Your task to perform on an android device: install app "Skype" Image 0: 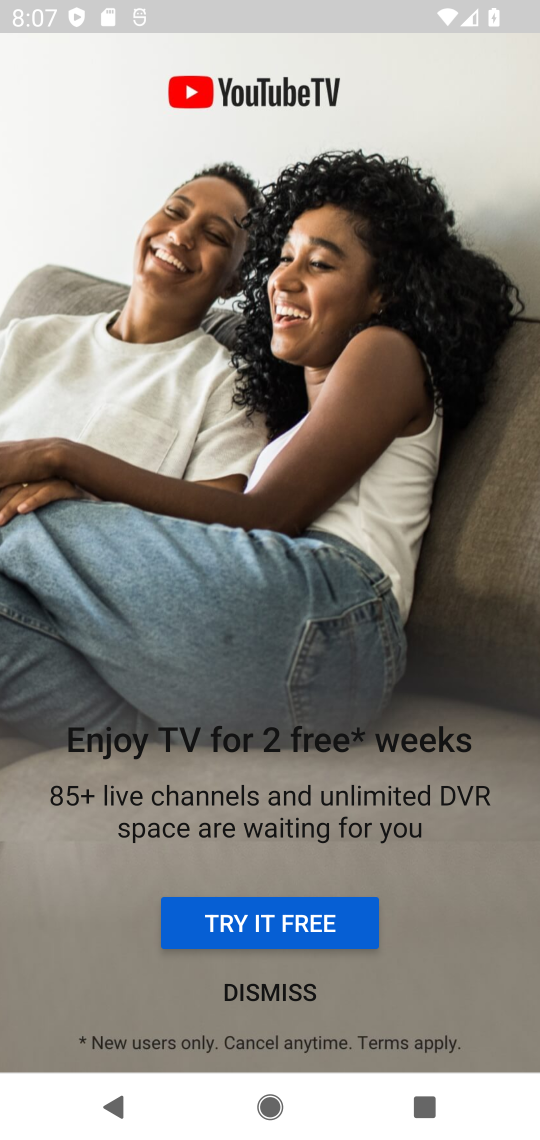
Step 0: press home button
Your task to perform on an android device: install app "Skype" Image 1: 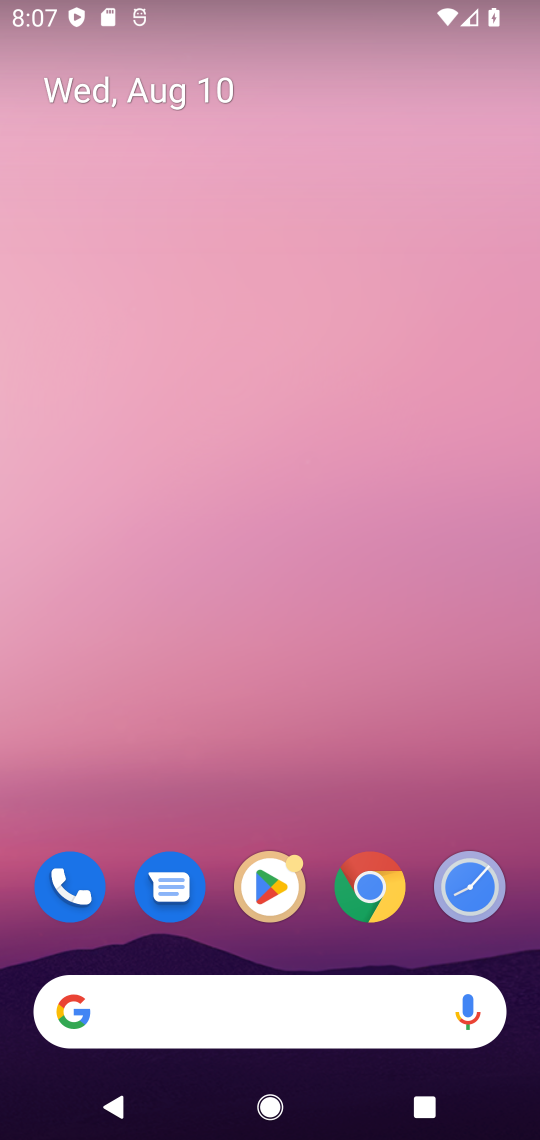
Step 1: click (248, 916)
Your task to perform on an android device: install app "Skype" Image 2: 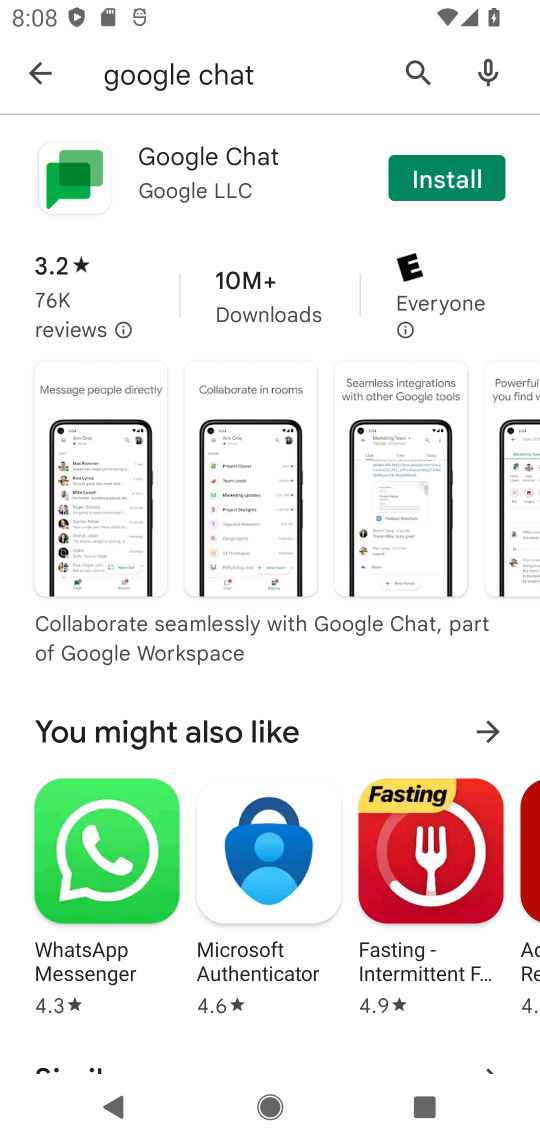
Step 2: click (414, 56)
Your task to perform on an android device: install app "Skype" Image 3: 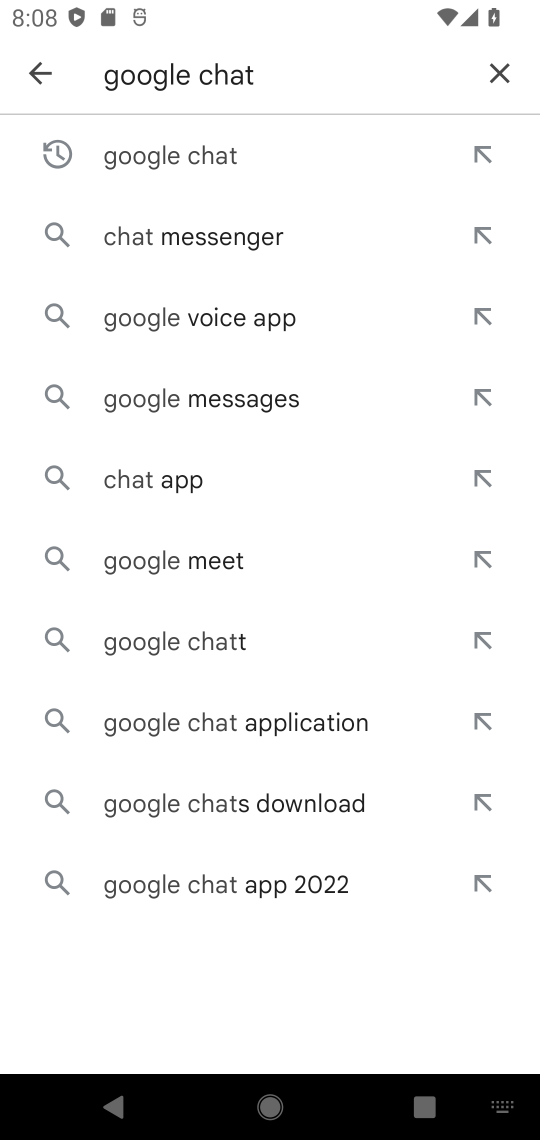
Step 3: click (479, 63)
Your task to perform on an android device: install app "Skype" Image 4: 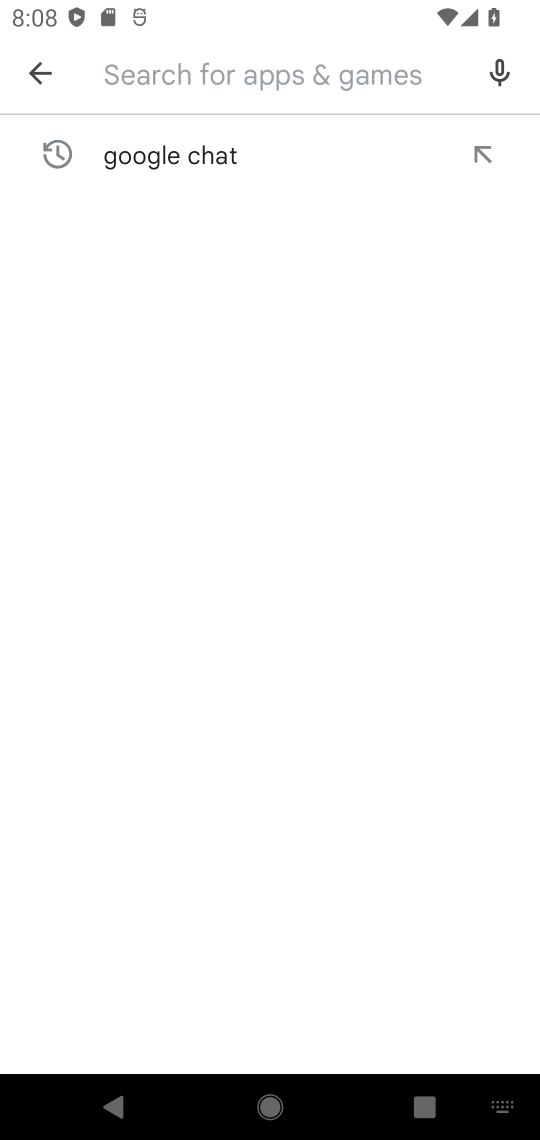
Step 4: type "skype"
Your task to perform on an android device: install app "Skype" Image 5: 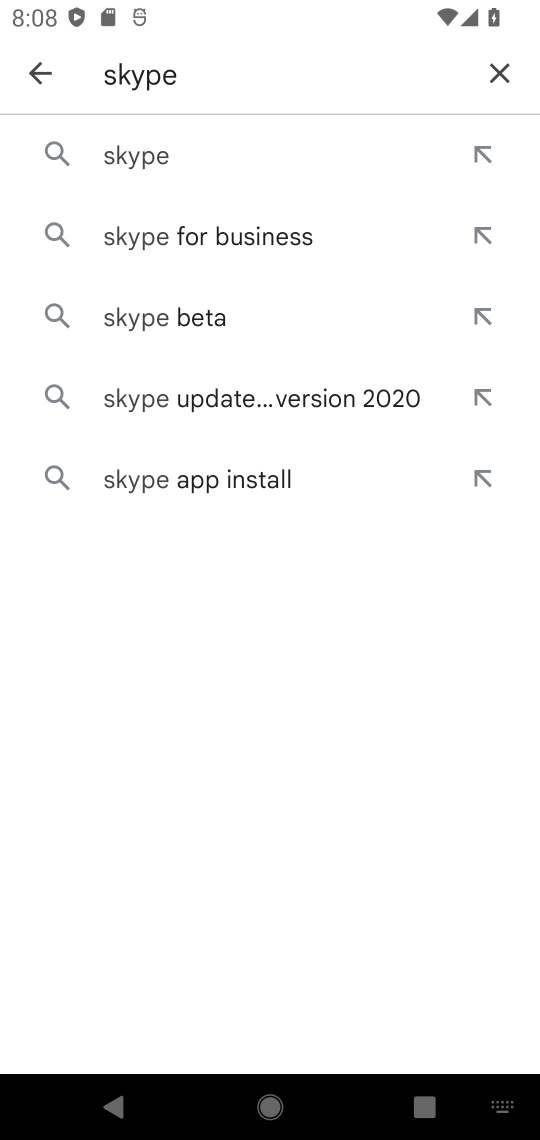
Step 5: click (398, 149)
Your task to perform on an android device: install app "Skype" Image 6: 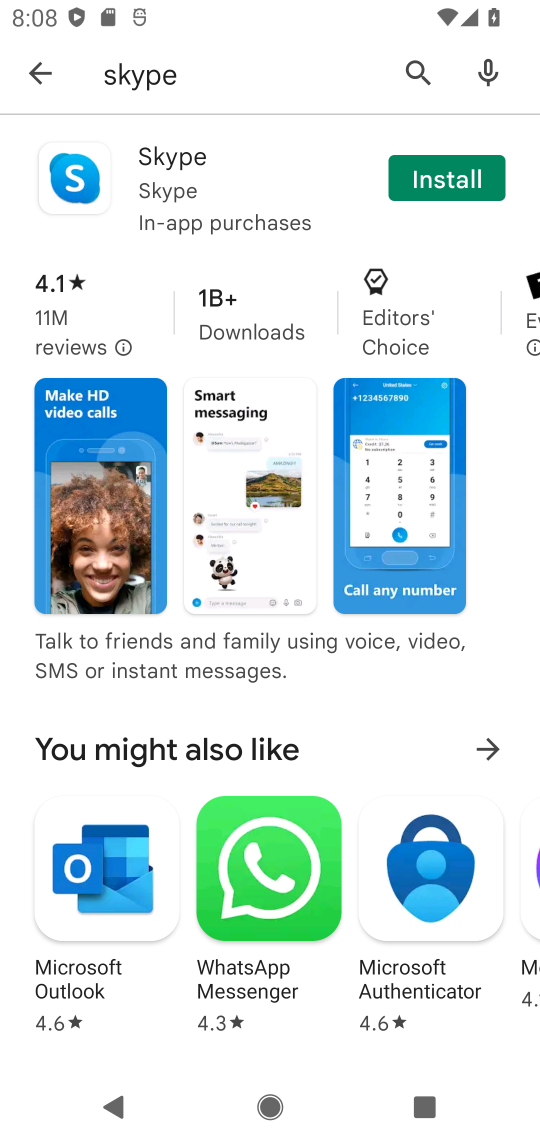
Step 6: click (490, 158)
Your task to perform on an android device: install app "Skype" Image 7: 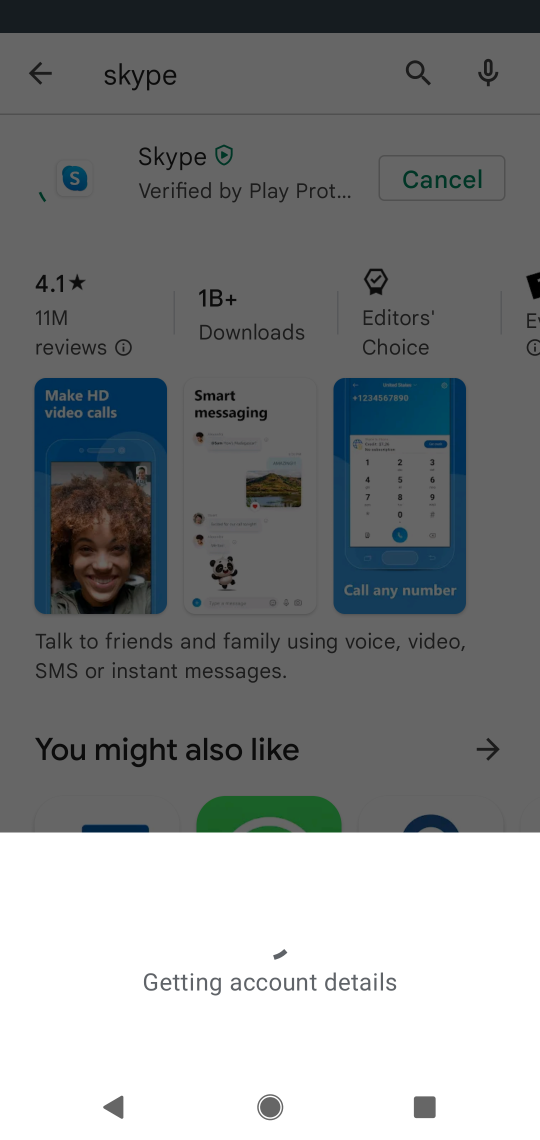
Step 7: task complete